Your task to perform on an android device: snooze an email in the gmail app Image 0: 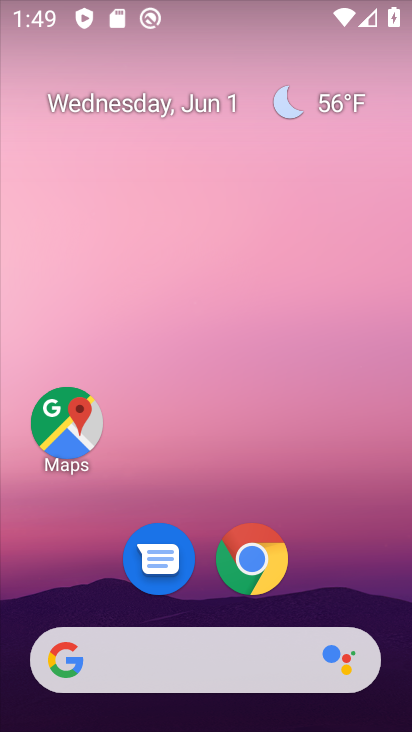
Step 0: drag from (330, 588) to (296, 224)
Your task to perform on an android device: snooze an email in the gmail app Image 1: 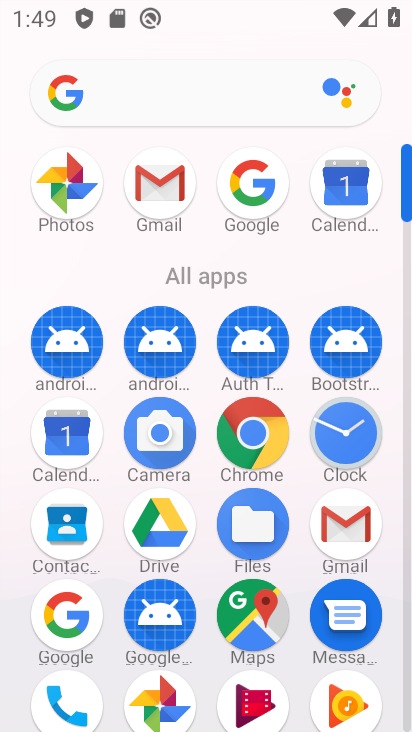
Step 1: click (155, 177)
Your task to perform on an android device: snooze an email in the gmail app Image 2: 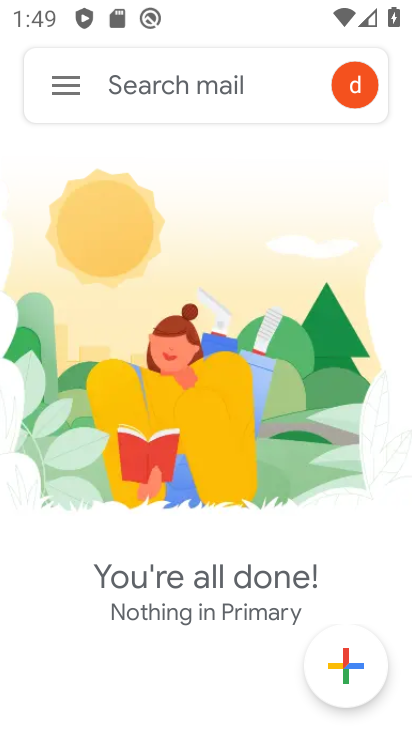
Step 2: click (61, 86)
Your task to perform on an android device: snooze an email in the gmail app Image 3: 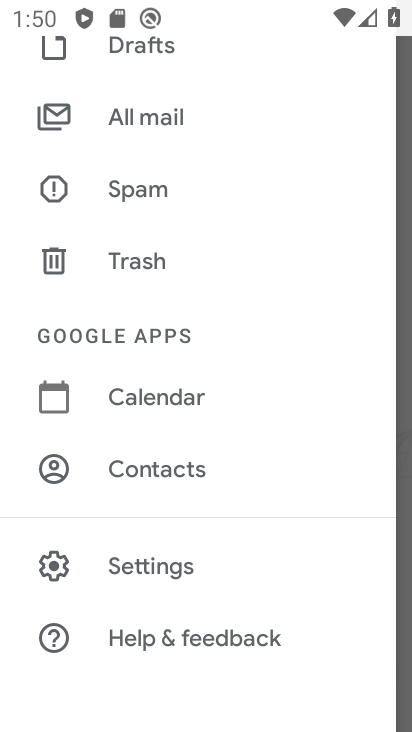
Step 3: click (158, 113)
Your task to perform on an android device: snooze an email in the gmail app Image 4: 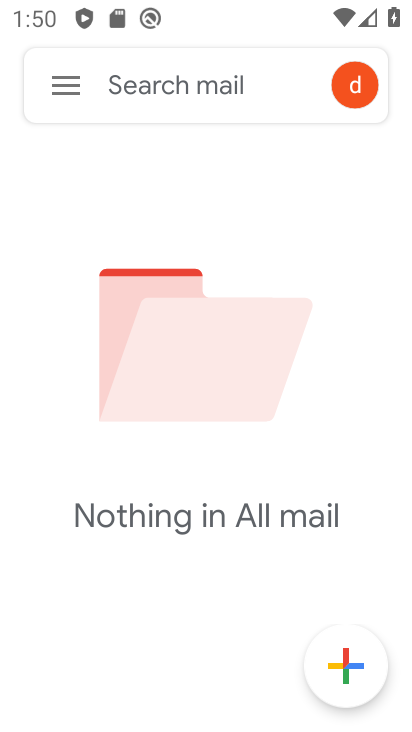
Step 4: press back button
Your task to perform on an android device: snooze an email in the gmail app Image 5: 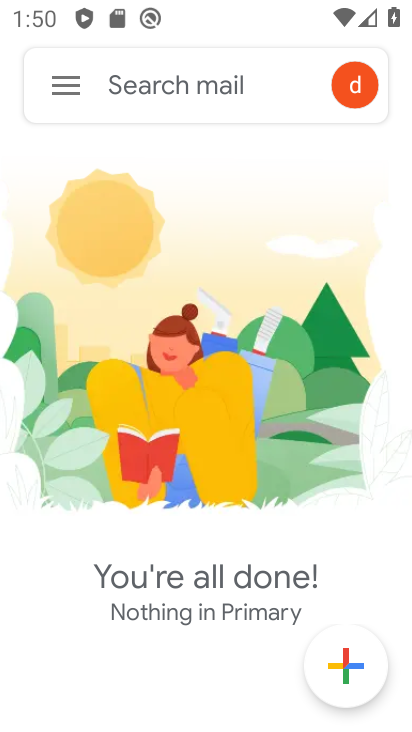
Step 5: click (71, 86)
Your task to perform on an android device: snooze an email in the gmail app Image 6: 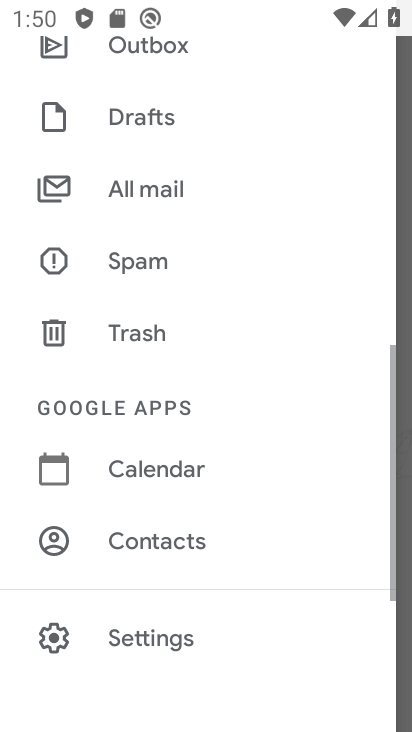
Step 6: drag from (123, 172) to (157, 322)
Your task to perform on an android device: snooze an email in the gmail app Image 7: 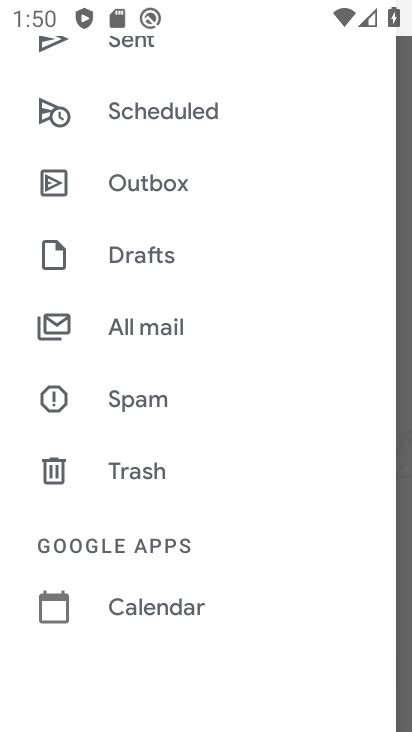
Step 7: drag from (206, 222) to (233, 316)
Your task to perform on an android device: snooze an email in the gmail app Image 8: 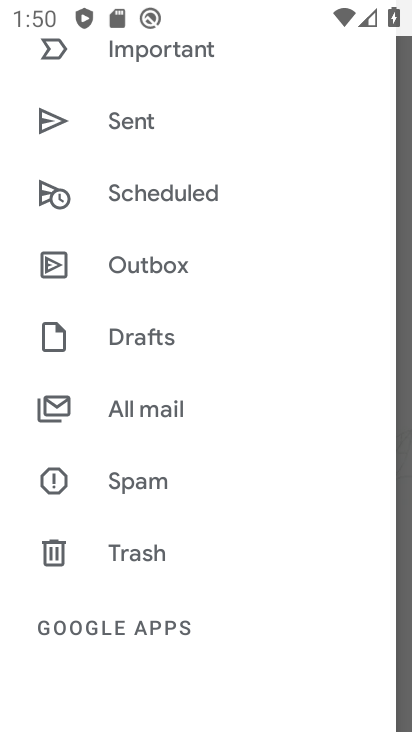
Step 8: drag from (212, 161) to (287, 294)
Your task to perform on an android device: snooze an email in the gmail app Image 9: 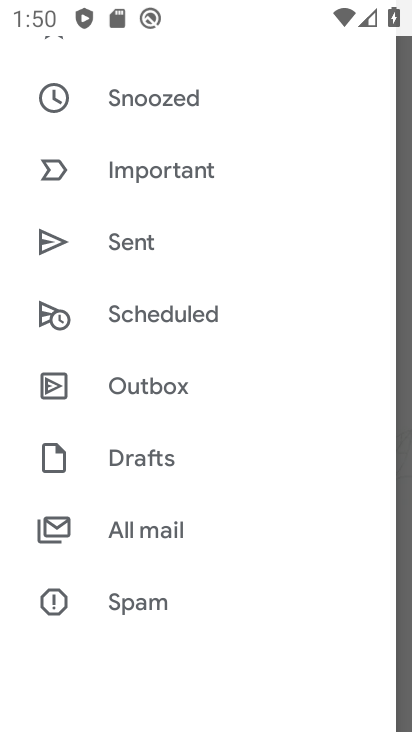
Step 9: drag from (233, 184) to (259, 298)
Your task to perform on an android device: snooze an email in the gmail app Image 10: 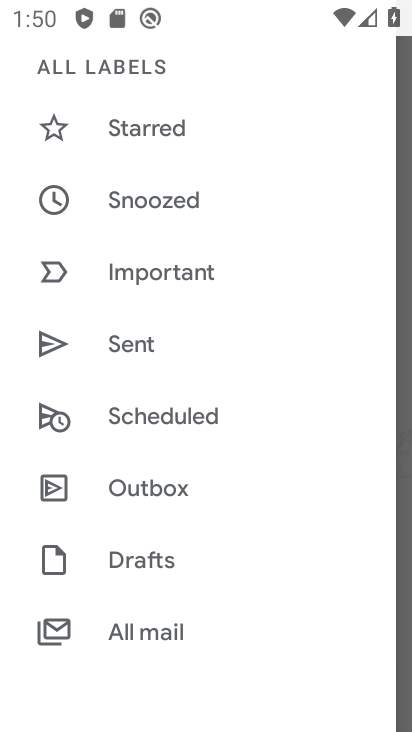
Step 10: click (179, 197)
Your task to perform on an android device: snooze an email in the gmail app Image 11: 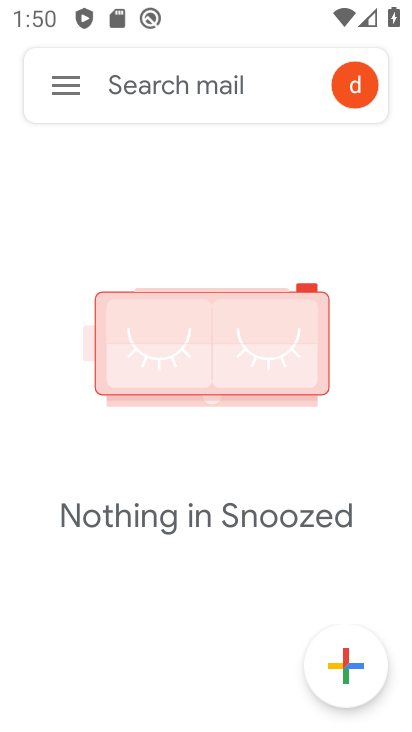
Step 11: task complete